Your task to perform on an android device: turn on javascript in the chrome app Image 0: 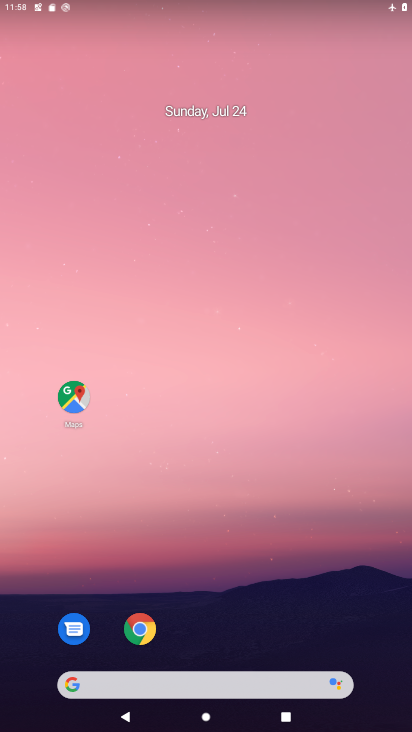
Step 0: click (141, 636)
Your task to perform on an android device: turn on javascript in the chrome app Image 1: 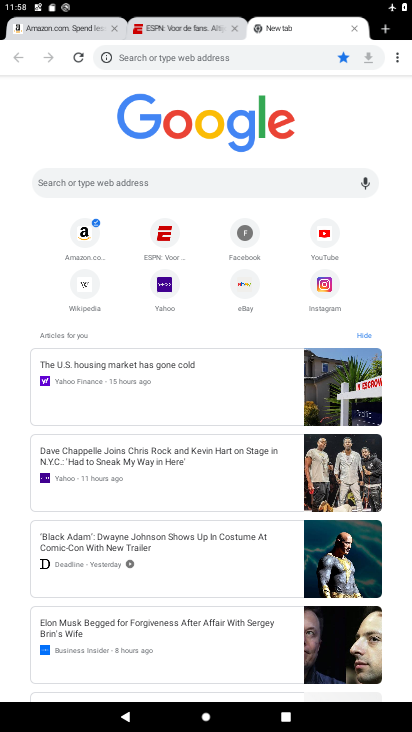
Step 1: click (396, 55)
Your task to perform on an android device: turn on javascript in the chrome app Image 2: 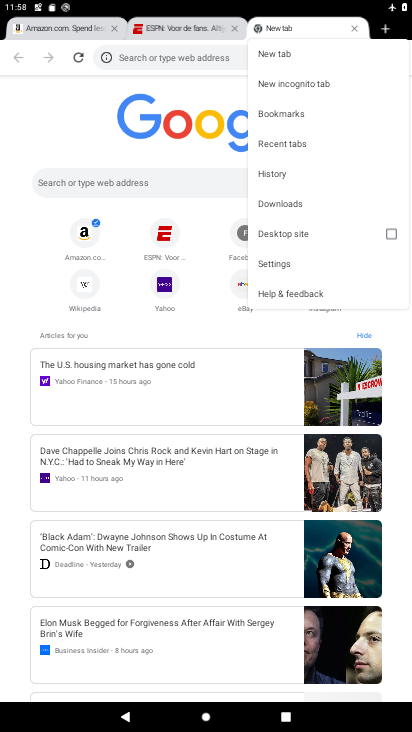
Step 2: click (283, 266)
Your task to perform on an android device: turn on javascript in the chrome app Image 3: 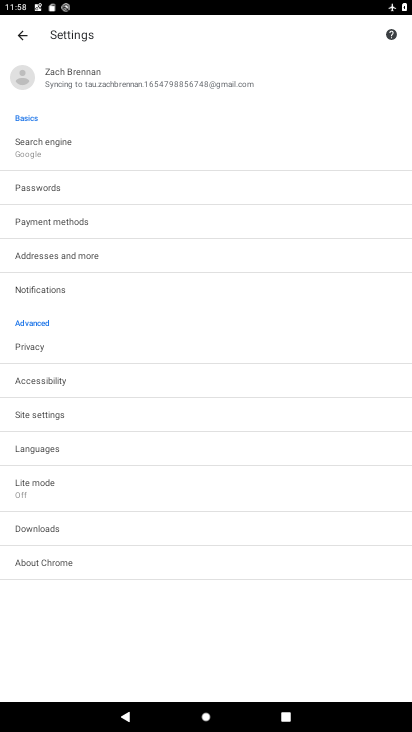
Step 3: click (62, 413)
Your task to perform on an android device: turn on javascript in the chrome app Image 4: 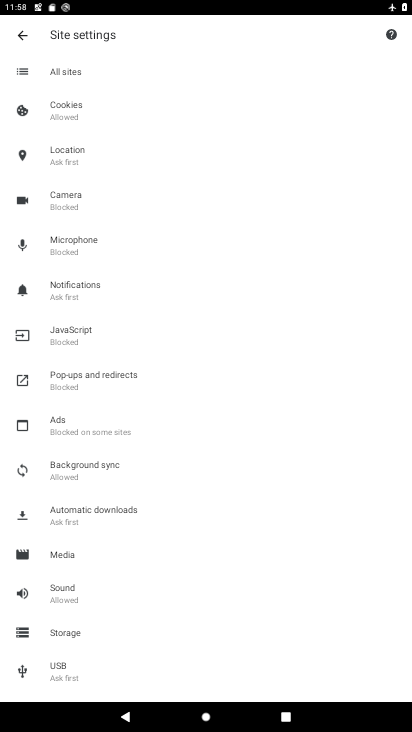
Step 4: click (86, 340)
Your task to perform on an android device: turn on javascript in the chrome app Image 5: 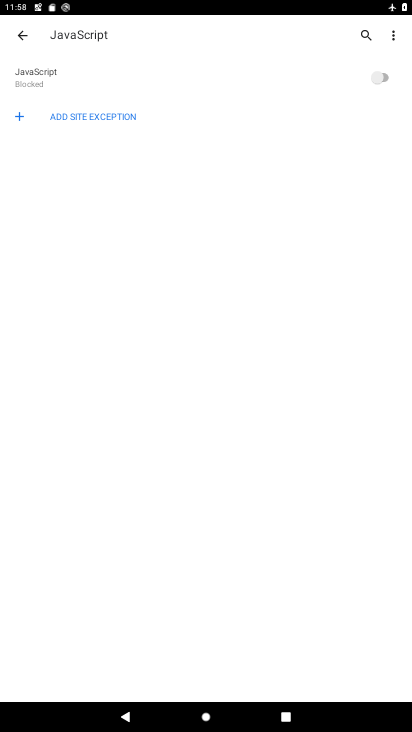
Step 5: click (344, 83)
Your task to perform on an android device: turn on javascript in the chrome app Image 6: 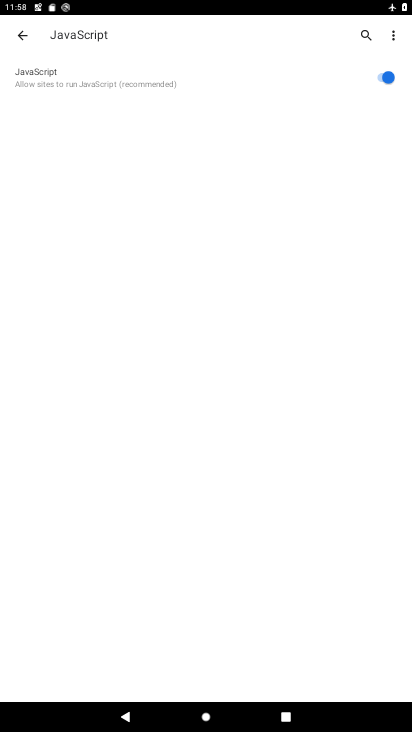
Step 6: task complete